Your task to perform on an android device: Go to notification settings Image 0: 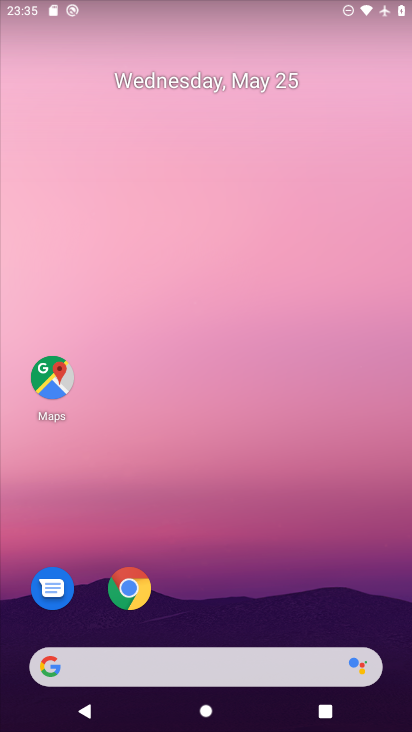
Step 0: drag from (286, 560) to (353, 131)
Your task to perform on an android device: Go to notification settings Image 1: 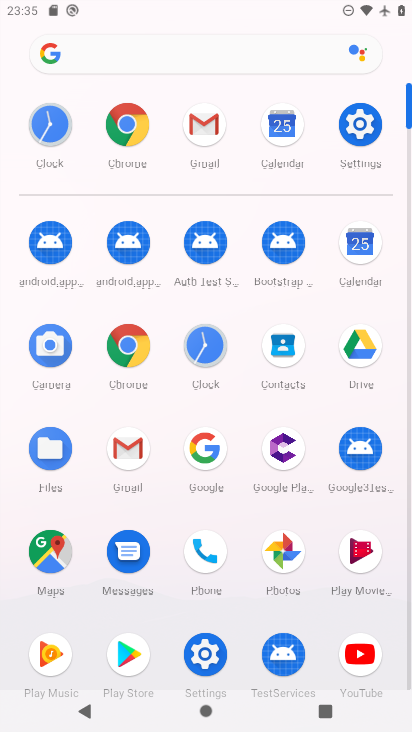
Step 1: click (364, 134)
Your task to perform on an android device: Go to notification settings Image 2: 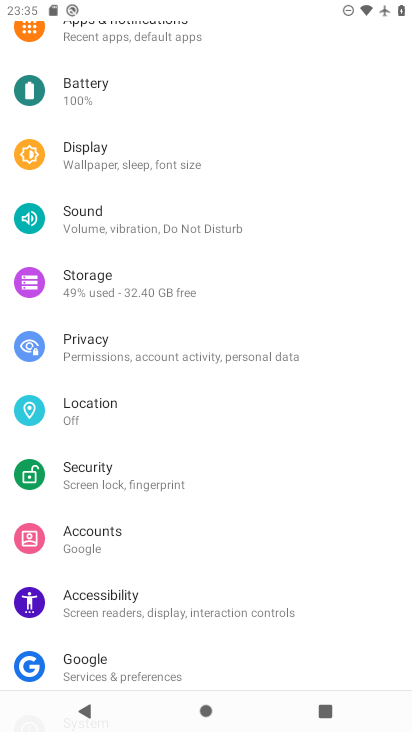
Step 2: drag from (177, 611) to (196, 682)
Your task to perform on an android device: Go to notification settings Image 3: 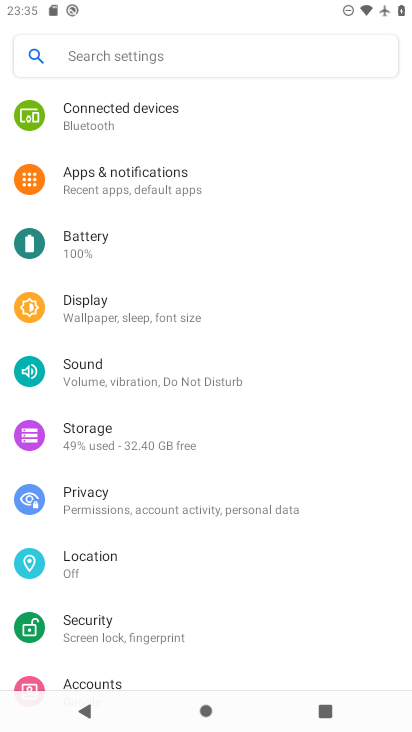
Step 3: click (131, 170)
Your task to perform on an android device: Go to notification settings Image 4: 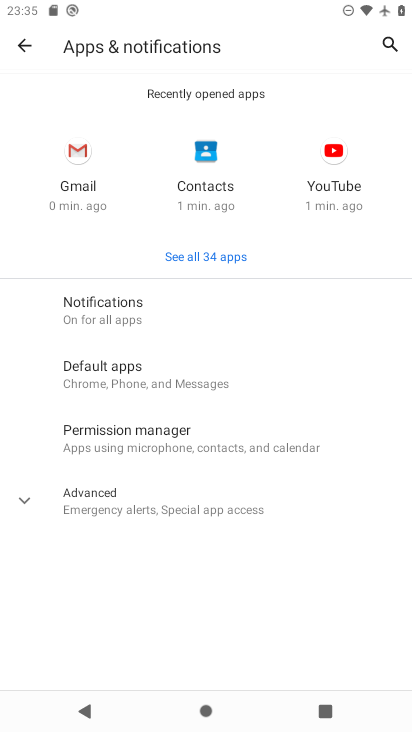
Step 4: click (105, 303)
Your task to perform on an android device: Go to notification settings Image 5: 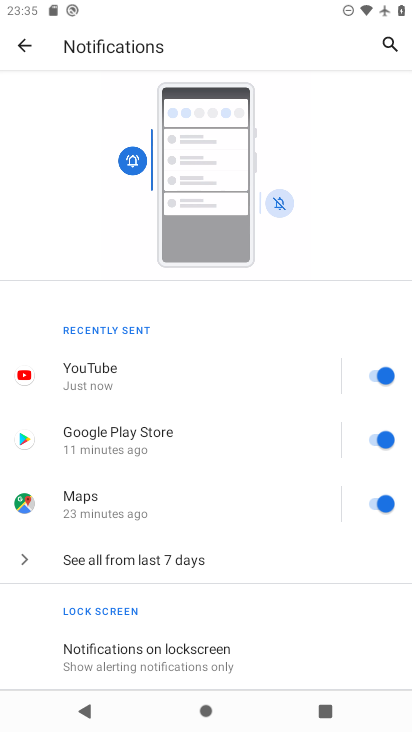
Step 5: task complete